Your task to perform on an android device: turn off smart reply in the gmail app Image 0: 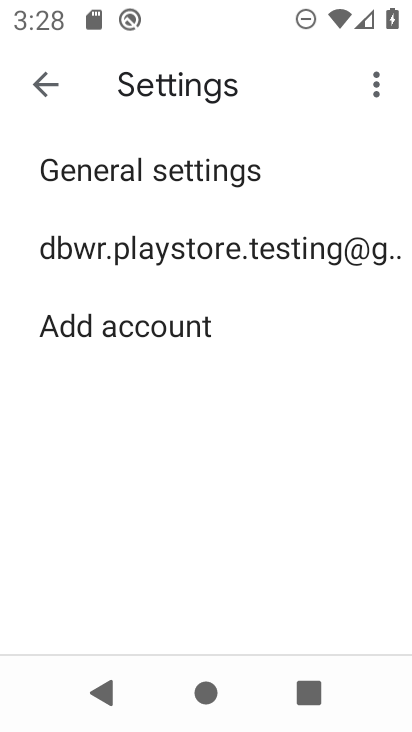
Step 0: press home button
Your task to perform on an android device: turn off smart reply in the gmail app Image 1: 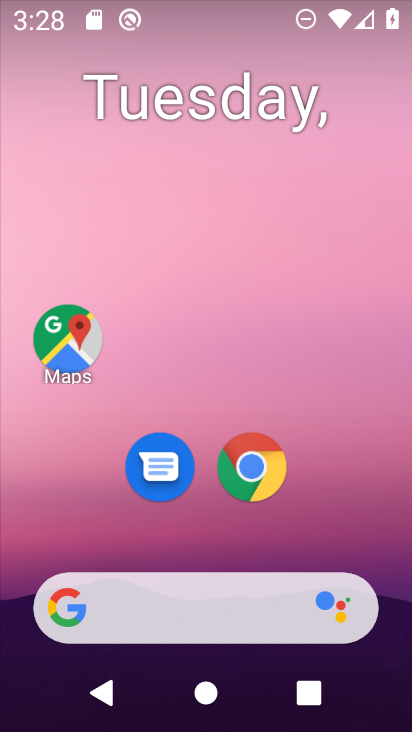
Step 1: drag from (191, 557) to (12, 65)
Your task to perform on an android device: turn off smart reply in the gmail app Image 2: 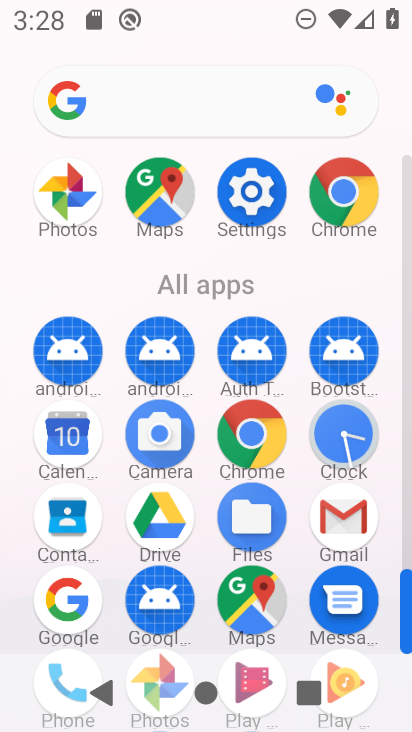
Step 2: click (334, 504)
Your task to perform on an android device: turn off smart reply in the gmail app Image 3: 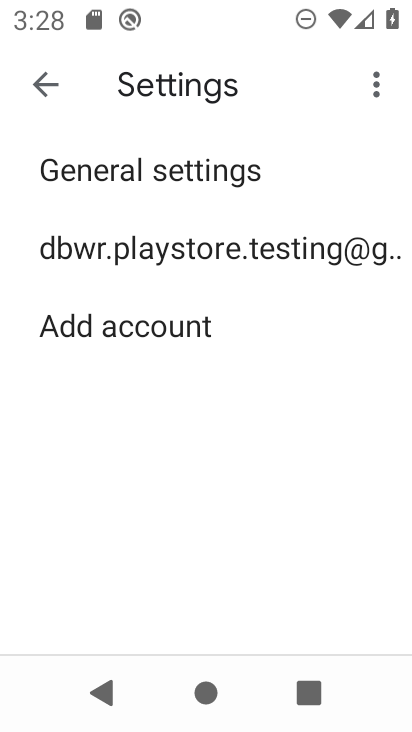
Step 3: click (86, 250)
Your task to perform on an android device: turn off smart reply in the gmail app Image 4: 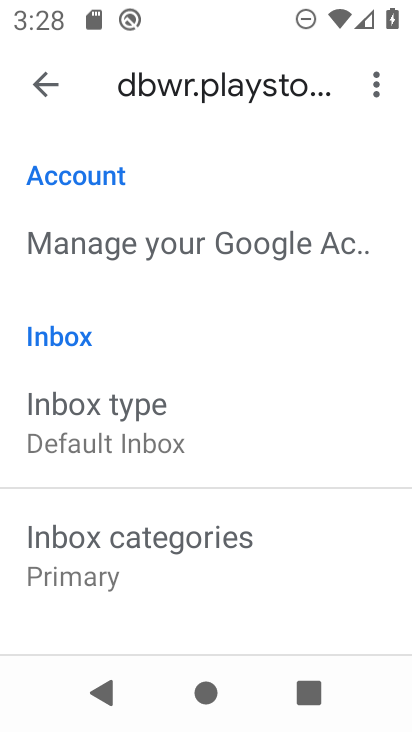
Step 4: drag from (252, 492) to (145, 6)
Your task to perform on an android device: turn off smart reply in the gmail app Image 5: 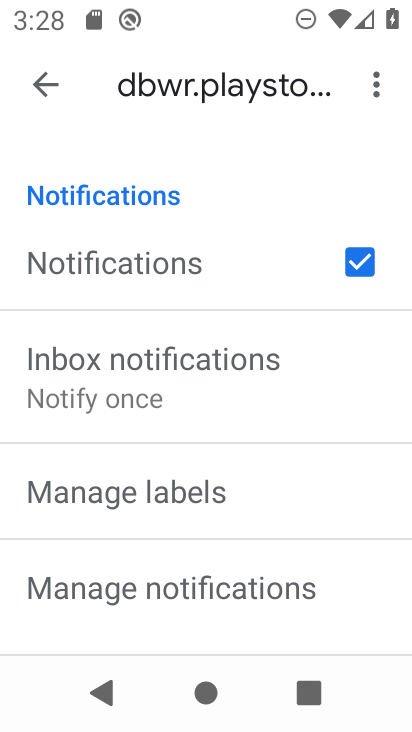
Step 5: drag from (211, 576) to (27, 6)
Your task to perform on an android device: turn off smart reply in the gmail app Image 6: 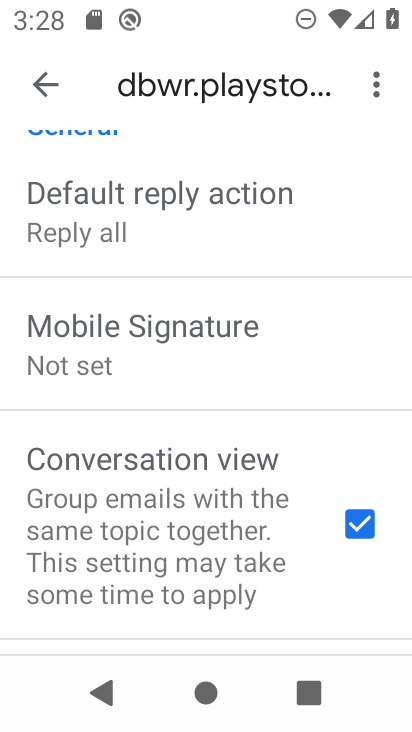
Step 6: drag from (210, 380) to (77, 5)
Your task to perform on an android device: turn off smart reply in the gmail app Image 7: 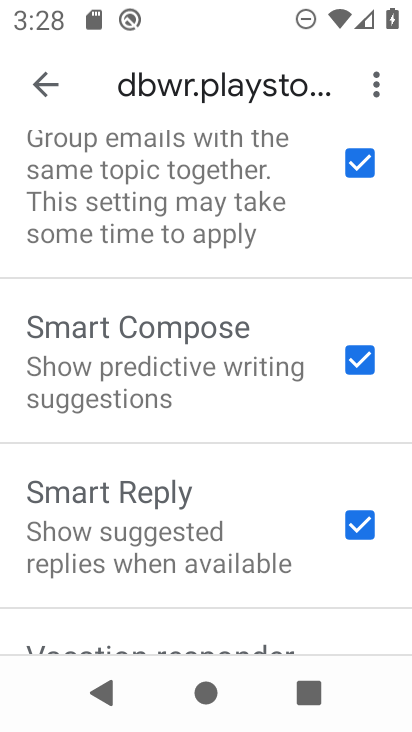
Step 7: click (357, 519)
Your task to perform on an android device: turn off smart reply in the gmail app Image 8: 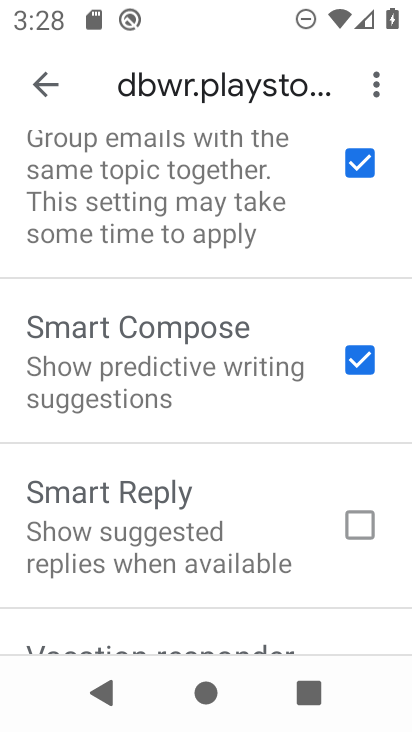
Step 8: task complete